Your task to perform on an android device: search for starred emails in the gmail app Image 0: 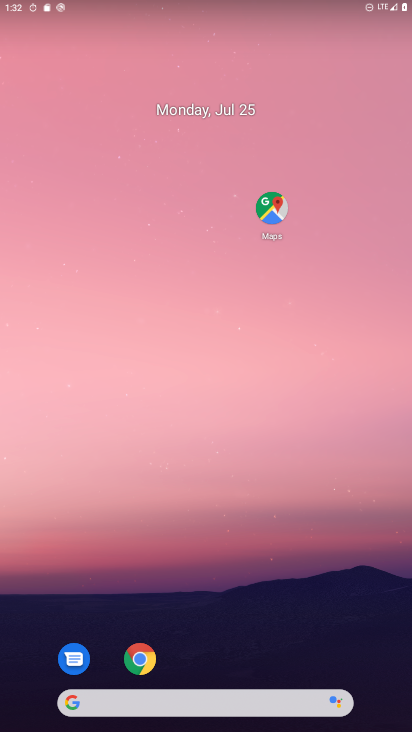
Step 0: drag from (90, 495) to (207, 212)
Your task to perform on an android device: search for starred emails in the gmail app Image 1: 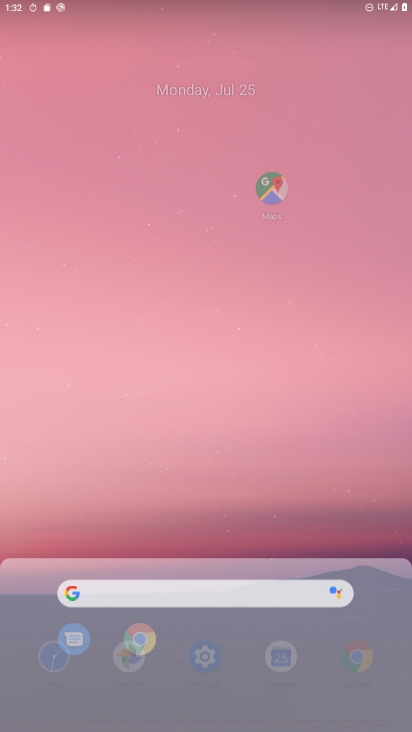
Step 1: click (241, 156)
Your task to perform on an android device: search for starred emails in the gmail app Image 2: 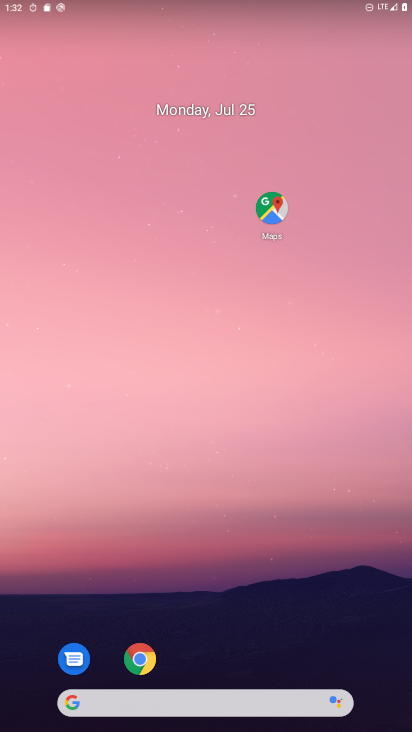
Step 2: drag from (150, 482) to (243, 208)
Your task to perform on an android device: search for starred emails in the gmail app Image 3: 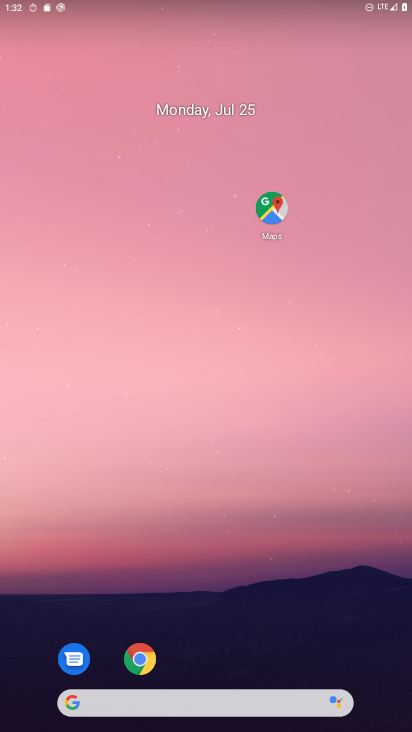
Step 3: drag from (48, 620) to (157, 102)
Your task to perform on an android device: search for starred emails in the gmail app Image 4: 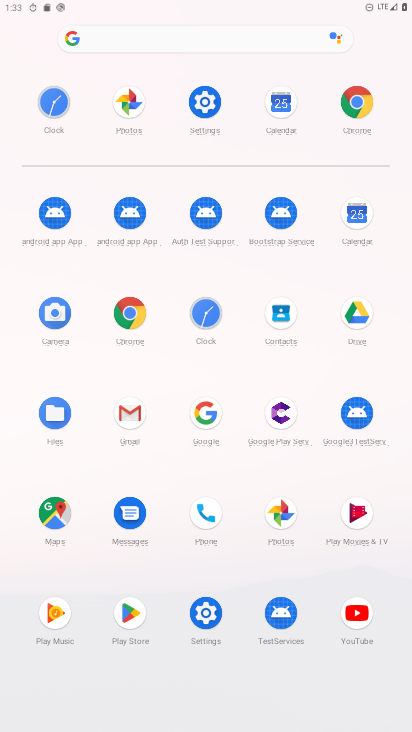
Step 4: click (136, 423)
Your task to perform on an android device: search for starred emails in the gmail app Image 5: 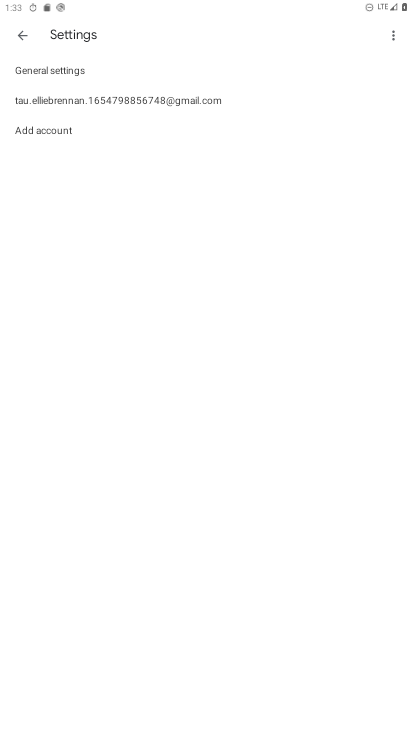
Step 5: click (24, 37)
Your task to perform on an android device: search for starred emails in the gmail app Image 6: 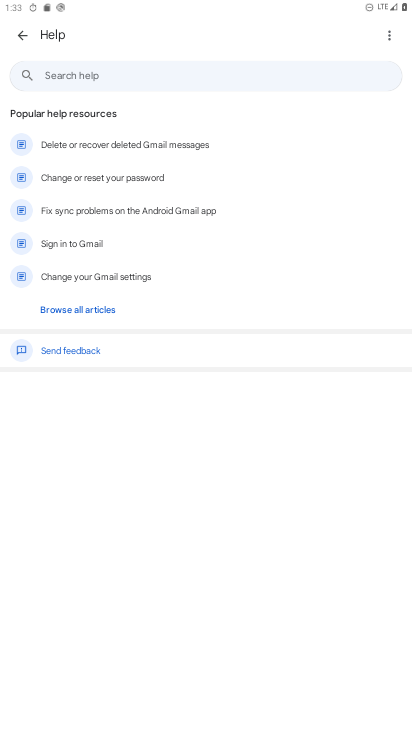
Step 6: click (21, 42)
Your task to perform on an android device: search for starred emails in the gmail app Image 7: 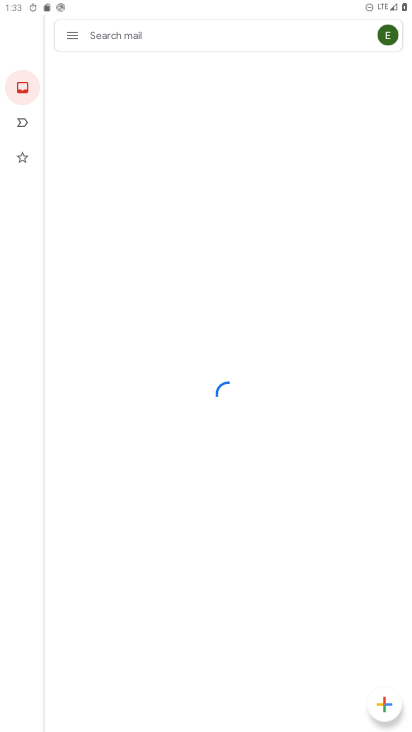
Step 7: click (24, 29)
Your task to perform on an android device: search for starred emails in the gmail app Image 8: 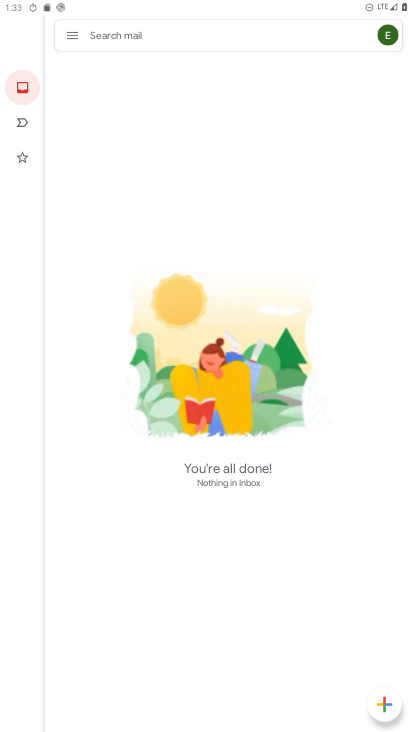
Step 8: click (71, 30)
Your task to perform on an android device: search for starred emails in the gmail app Image 9: 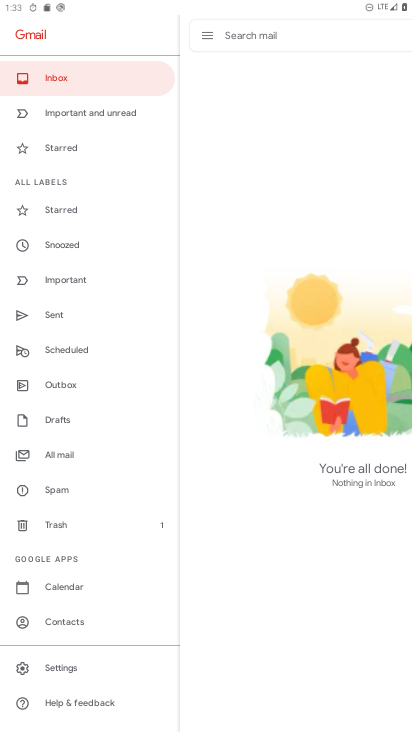
Step 9: click (66, 215)
Your task to perform on an android device: search for starred emails in the gmail app Image 10: 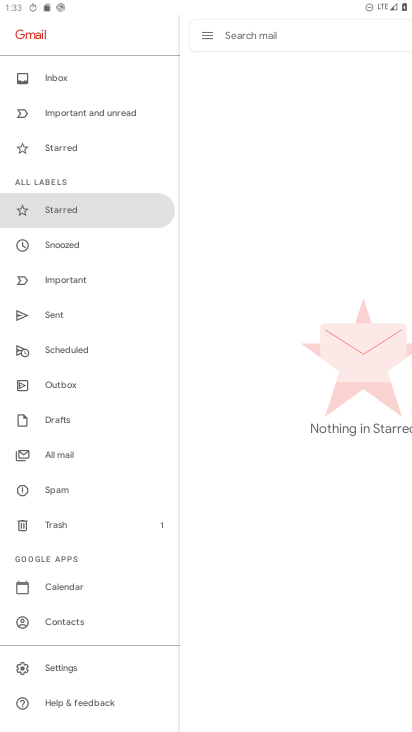
Step 10: task complete